Your task to perform on an android device: uninstall "Messages" Image 0: 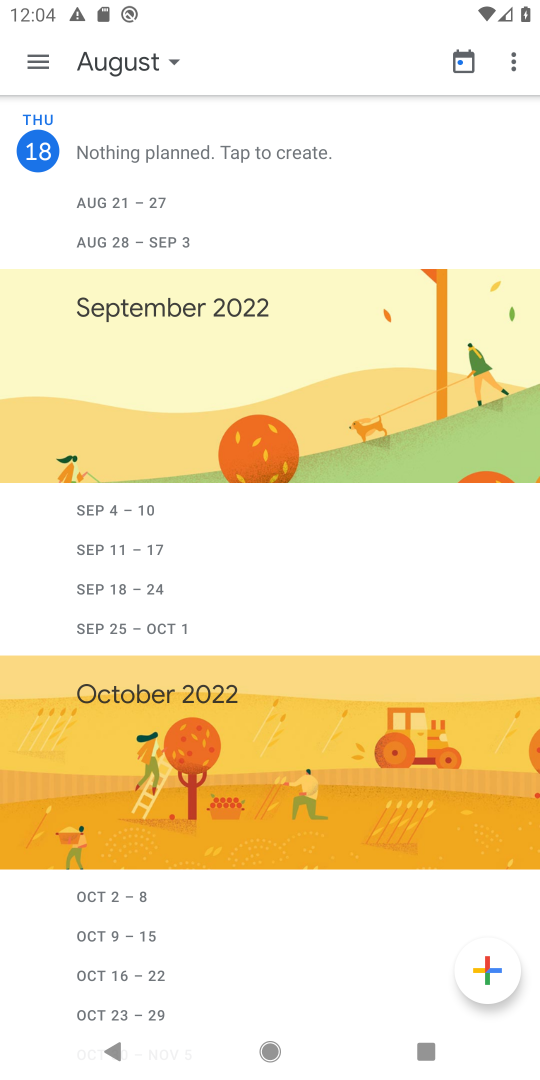
Step 0: press home button
Your task to perform on an android device: uninstall "Messages" Image 1: 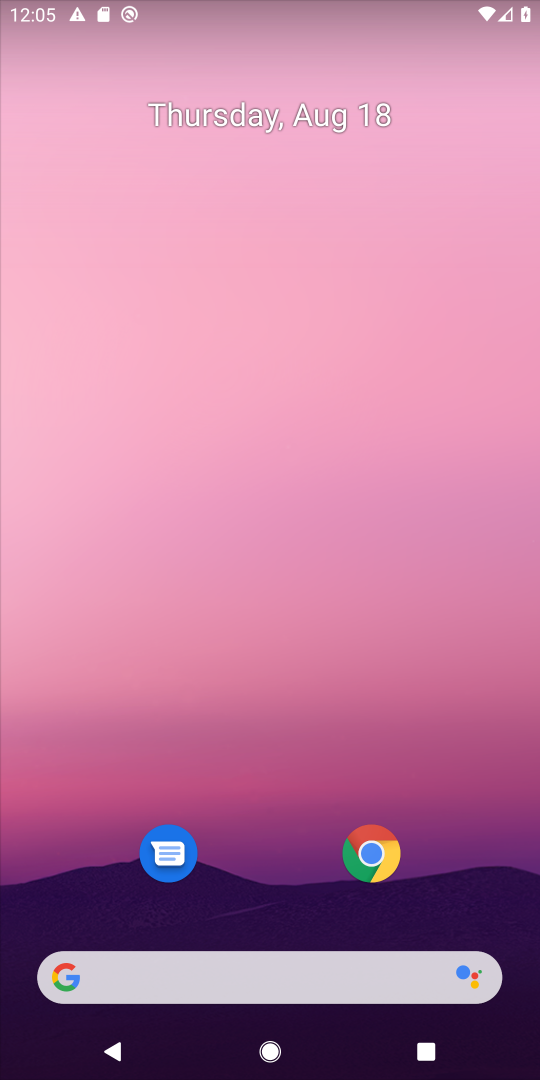
Step 1: task complete